Your task to perform on an android device: change your default location settings in chrome Image 0: 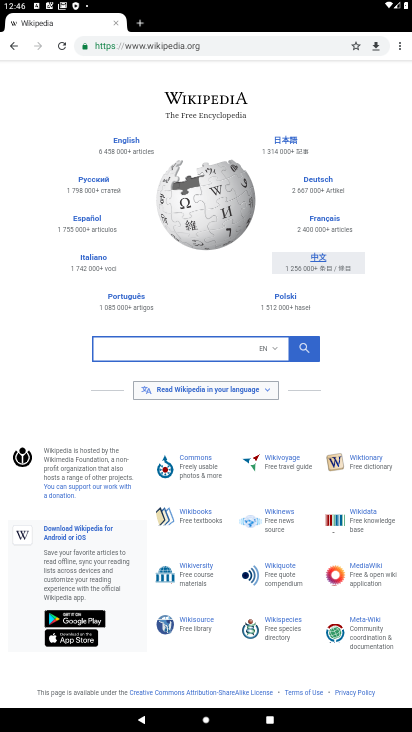
Step 0: click (400, 47)
Your task to perform on an android device: change your default location settings in chrome Image 1: 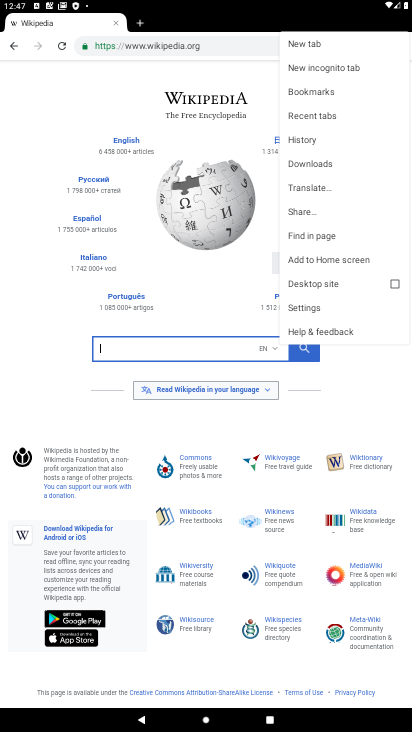
Step 1: click (309, 307)
Your task to perform on an android device: change your default location settings in chrome Image 2: 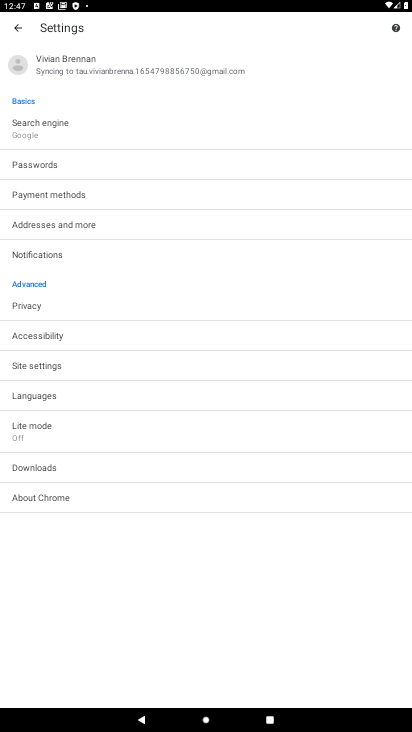
Step 2: click (31, 368)
Your task to perform on an android device: change your default location settings in chrome Image 3: 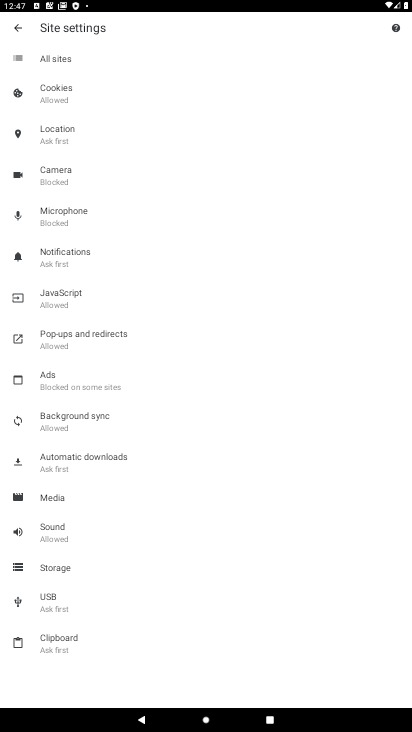
Step 3: click (56, 137)
Your task to perform on an android device: change your default location settings in chrome Image 4: 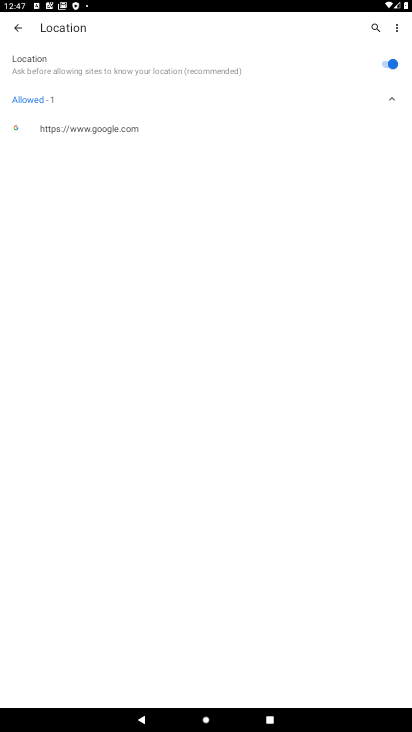
Step 4: click (382, 65)
Your task to perform on an android device: change your default location settings in chrome Image 5: 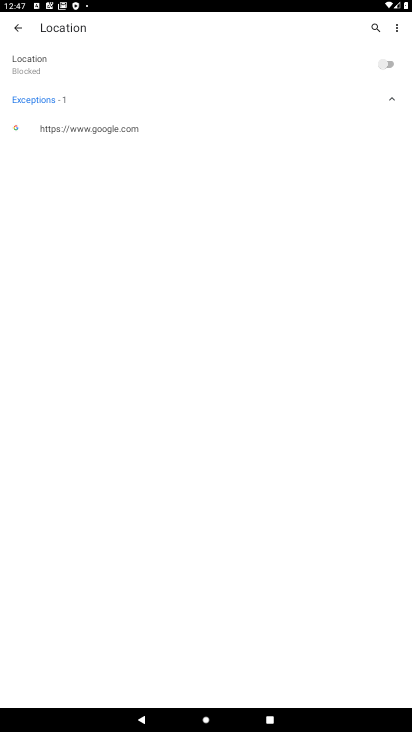
Step 5: task complete